Your task to perform on an android device: Go to internet settings Image 0: 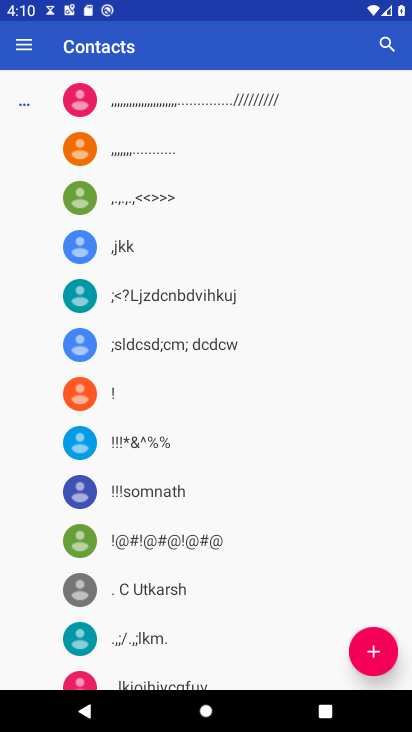
Step 0: press home button
Your task to perform on an android device: Go to internet settings Image 1: 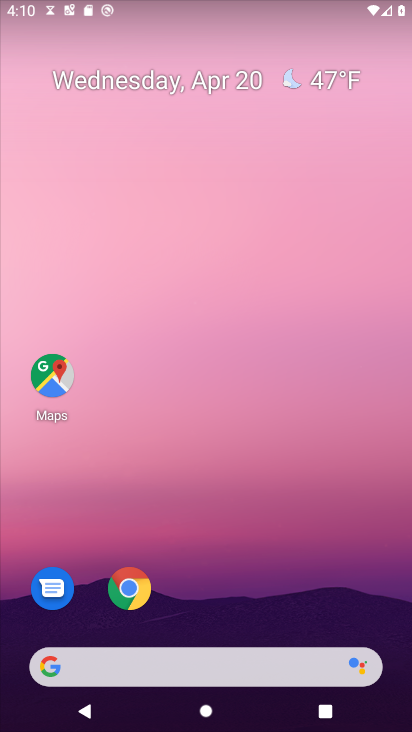
Step 1: drag from (232, 566) to (324, 179)
Your task to perform on an android device: Go to internet settings Image 2: 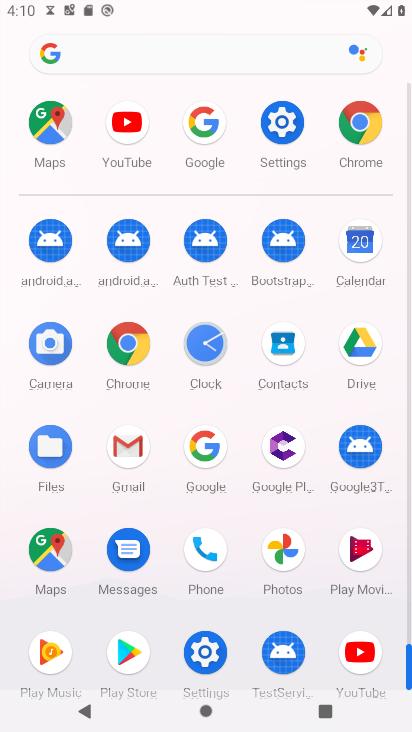
Step 2: click (292, 137)
Your task to perform on an android device: Go to internet settings Image 3: 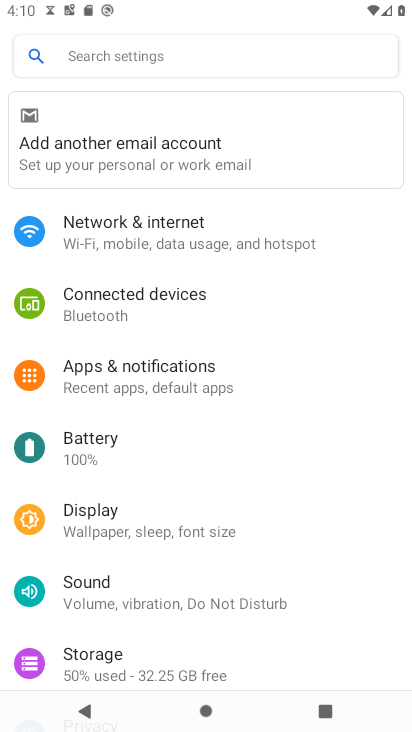
Step 3: click (187, 231)
Your task to perform on an android device: Go to internet settings Image 4: 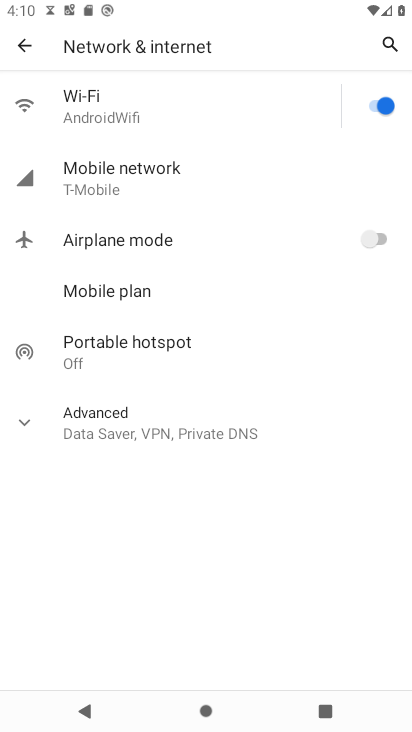
Step 4: click (192, 186)
Your task to perform on an android device: Go to internet settings Image 5: 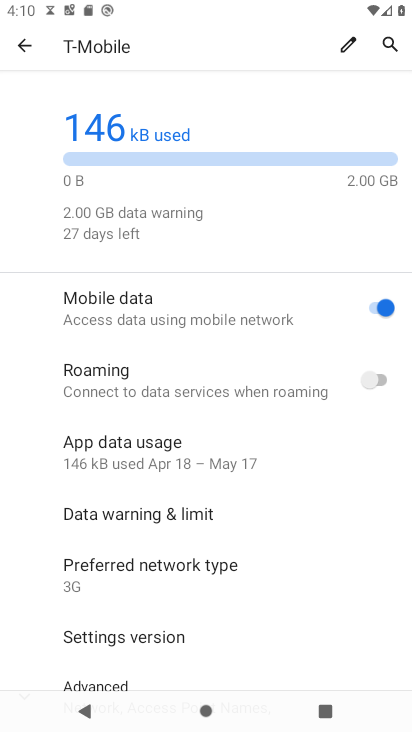
Step 5: task complete